Your task to perform on an android device: Open location settings Image 0: 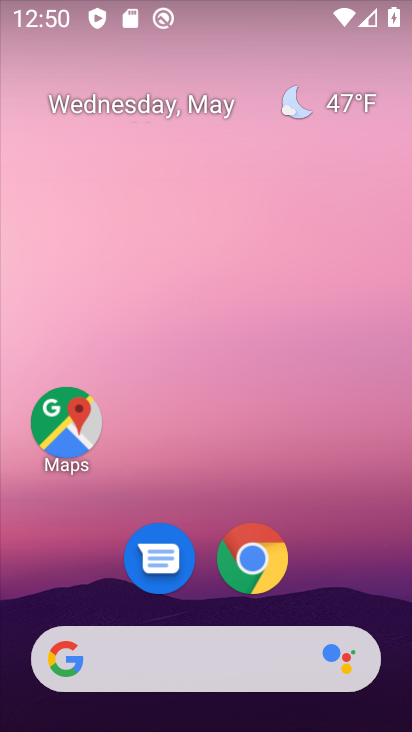
Step 0: drag from (195, 549) to (1, 147)
Your task to perform on an android device: Open location settings Image 1: 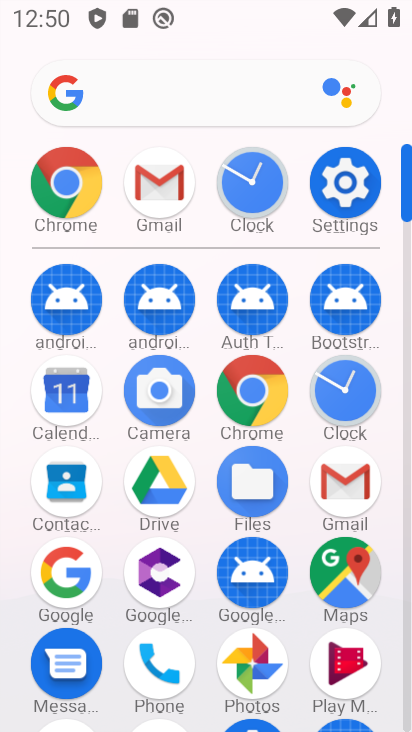
Step 1: click (357, 229)
Your task to perform on an android device: Open location settings Image 2: 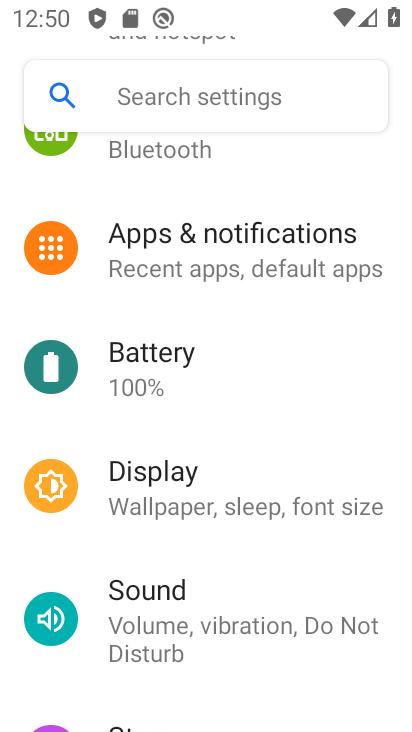
Step 2: drag from (156, 586) to (221, 113)
Your task to perform on an android device: Open location settings Image 3: 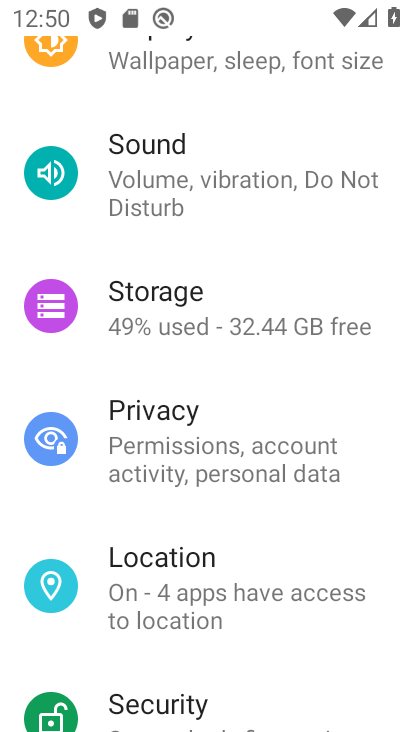
Step 3: click (200, 589)
Your task to perform on an android device: Open location settings Image 4: 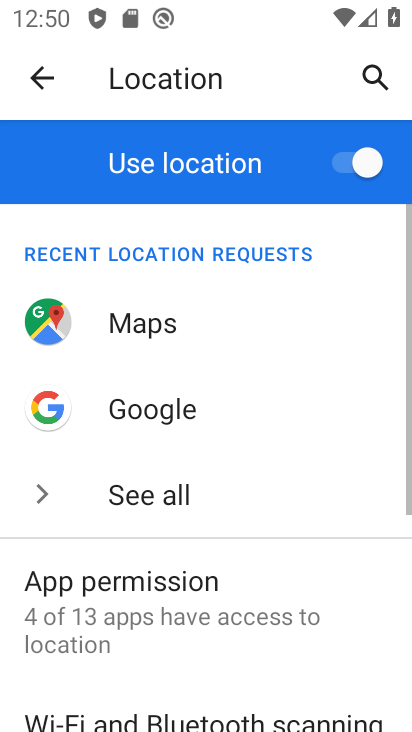
Step 4: task complete